Your task to perform on an android device: change the clock style Image 0: 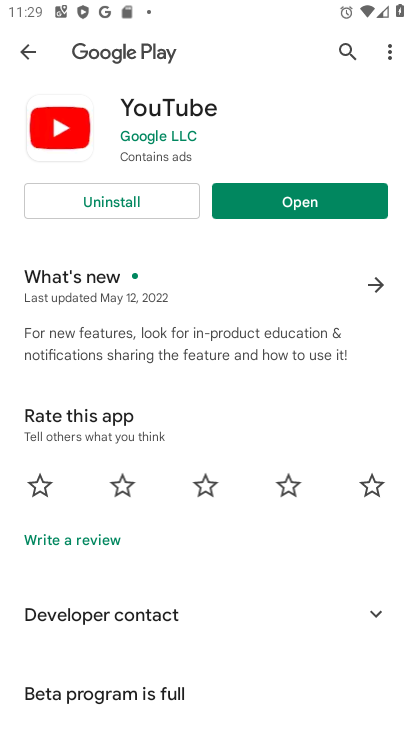
Step 0: press home button
Your task to perform on an android device: change the clock style Image 1: 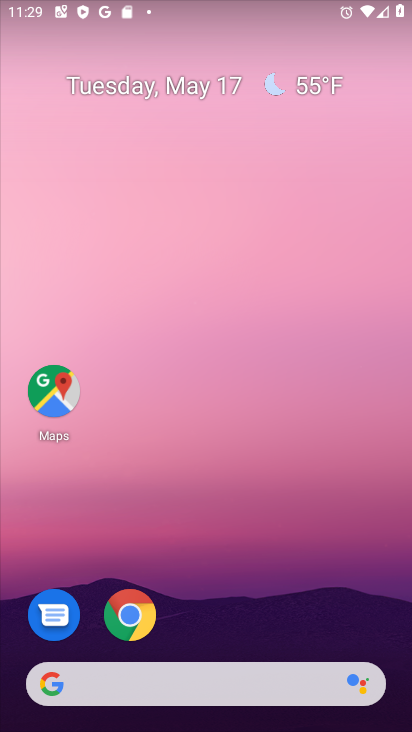
Step 1: drag from (259, 505) to (264, 70)
Your task to perform on an android device: change the clock style Image 2: 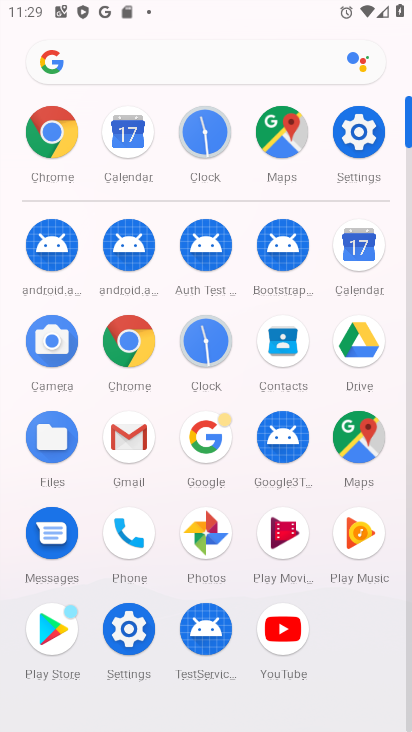
Step 2: click (212, 120)
Your task to perform on an android device: change the clock style Image 3: 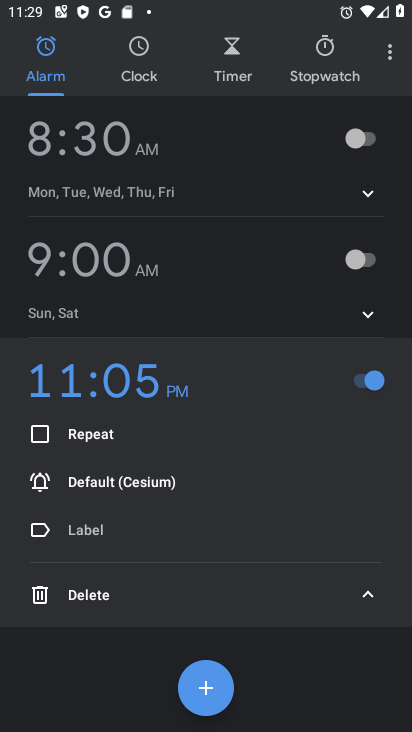
Step 3: click (395, 52)
Your task to perform on an android device: change the clock style Image 4: 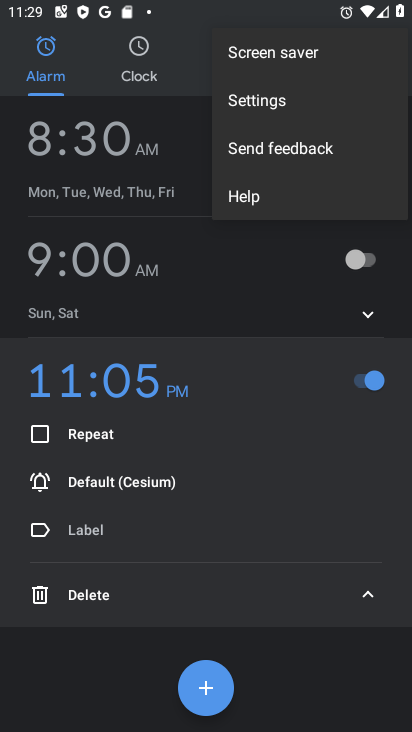
Step 4: click (303, 109)
Your task to perform on an android device: change the clock style Image 5: 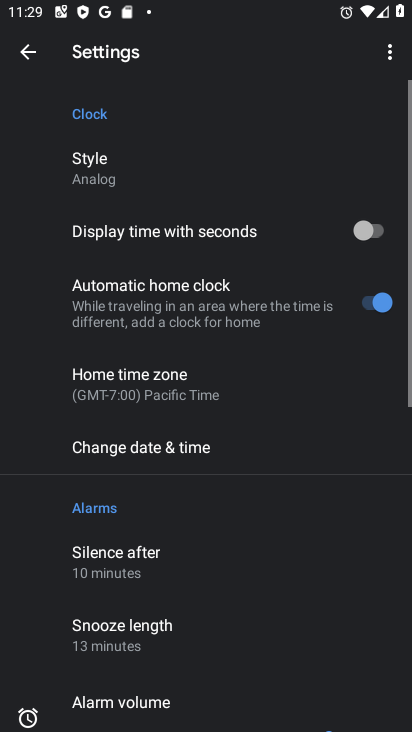
Step 5: click (102, 177)
Your task to perform on an android device: change the clock style Image 6: 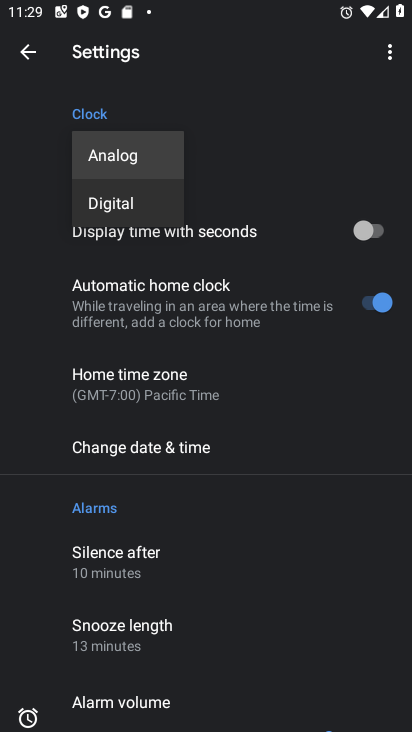
Step 6: click (123, 202)
Your task to perform on an android device: change the clock style Image 7: 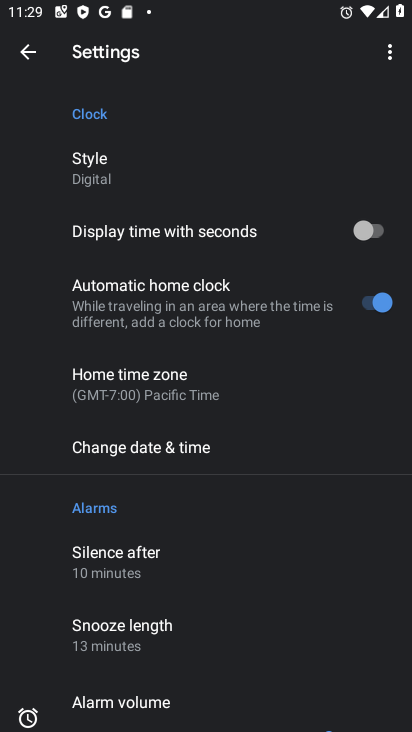
Step 7: task complete